Your task to perform on an android device: open app "Microsoft Outlook" (install if not already installed) Image 0: 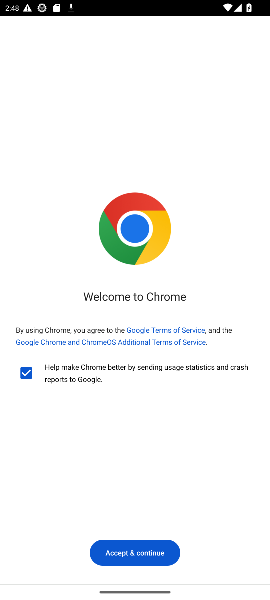
Step 0: press home button
Your task to perform on an android device: open app "Microsoft Outlook" (install if not already installed) Image 1: 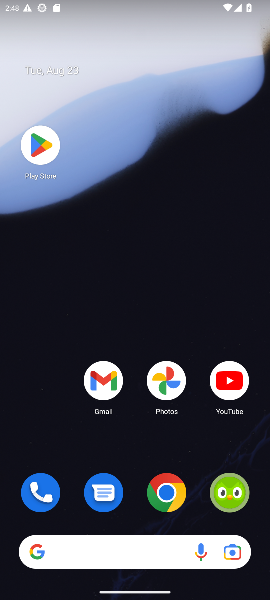
Step 1: click (32, 156)
Your task to perform on an android device: open app "Microsoft Outlook" (install if not already installed) Image 2: 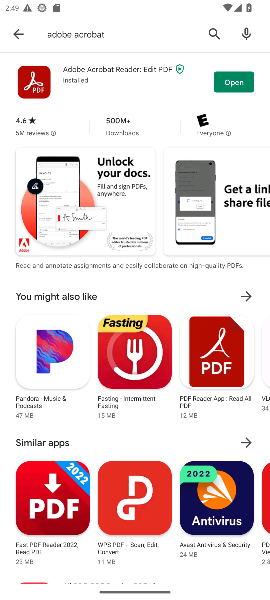
Step 2: click (209, 45)
Your task to perform on an android device: open app "Microsoft Outlook" (install if not already installed) Image 3: 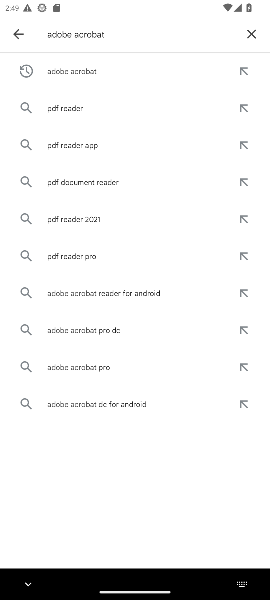
Step 3: click (243, 38)
Your task to perform on an android device: open app "Microsoft Outlook" (install if not already installed) Image 4: 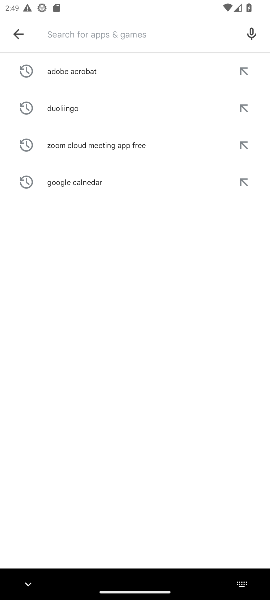
Step 4: type "microsoftoutlook"
Your task to perform on an android device: open app "Microsoft Outlook" (install if not already installed) Image 5: 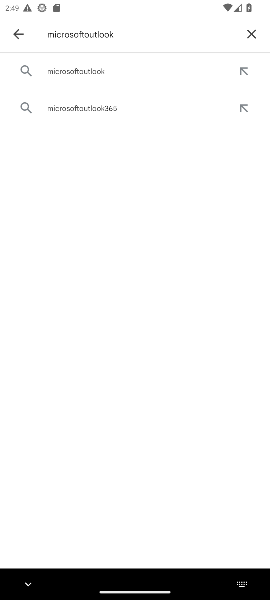
Step 5: click (114, 73)
Your task to perform on an android device: open app "Microsoft Outlook" (install if not already installed) Image 6: 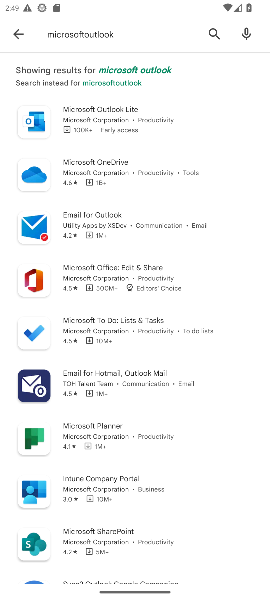
Step 6: click (175, 113)
Your task to perform on an android device: open app "Microsoft Outlook" (install if not already installed) Image 7: 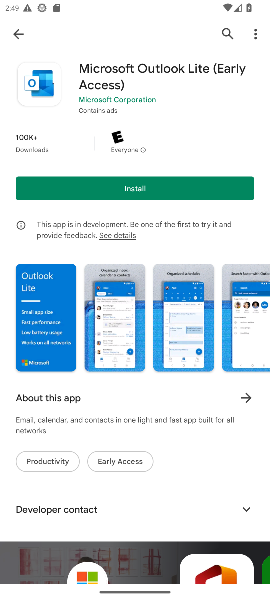
Step 7: click (178, 186)
Your task to perform on an android device: open app "Microsoft Outlook" (install if not already installed) Image 8: 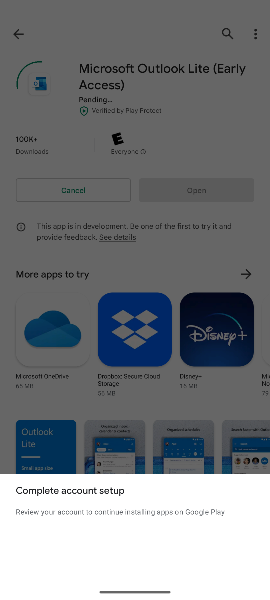
Step 8: task complete